Your task to perform on an android device: Open sound settings Image 0: 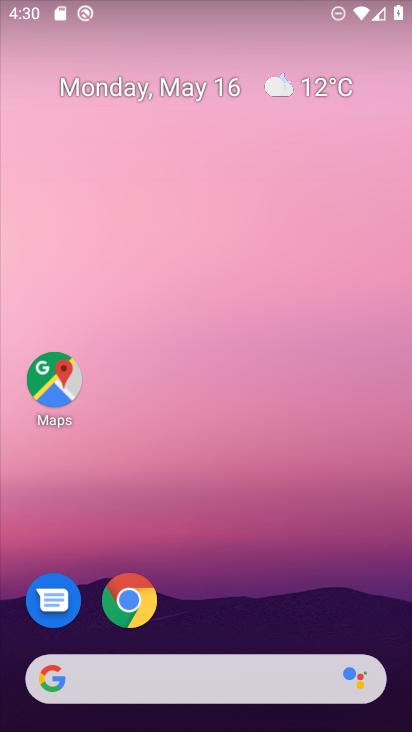
Step 0: drag from (320, 506) to (303, 3)
Your task to perform on an android device: Open sound settings Image 1: 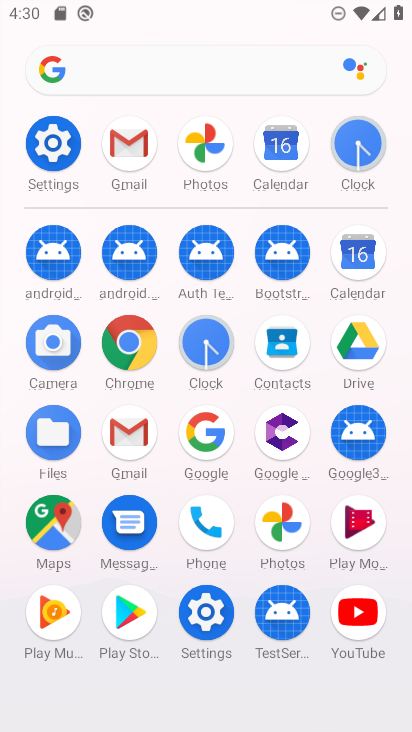
Step 1: click (67, 141)
Your task to perform on an android device: Open sound settings Image 2: 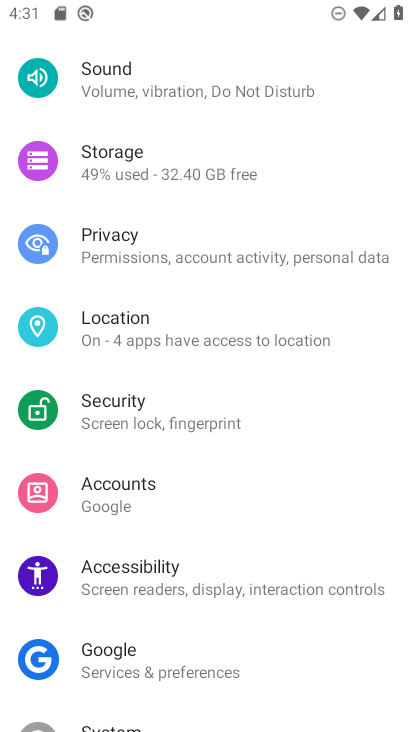
Step 2: drag from (160, 604) to (204, 413)
Your task to perform on an android device: Open sound settings Image 3: 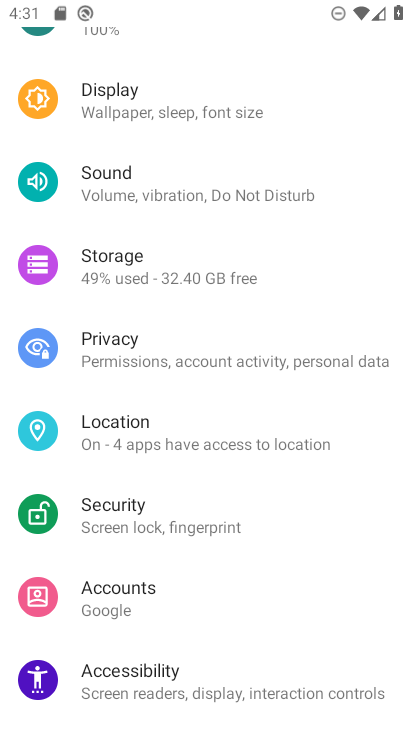
Step 3: click (170, 194)
Your task to perform on an android device: Open sound settings Image 4: 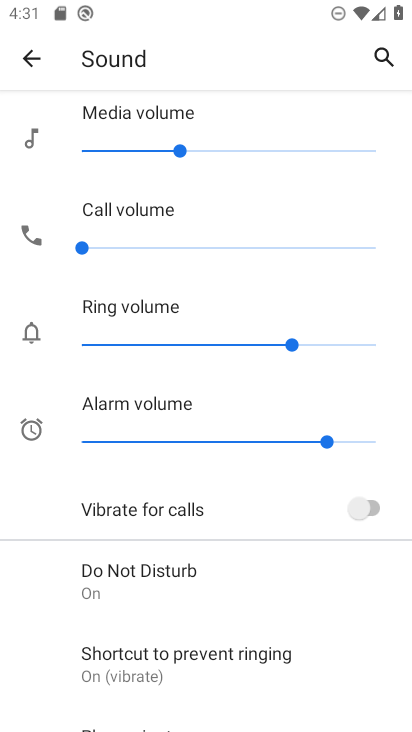
Step 4: task complete